Your task to perform on an android device: Go to CNN.com Image 0: 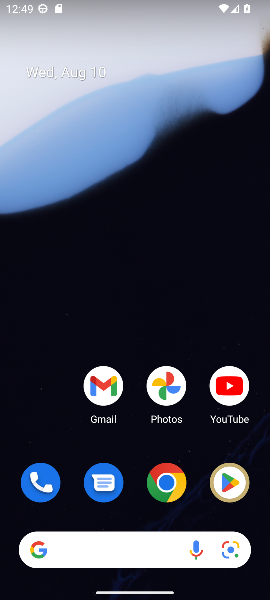
Step 0: click (140, 549)
Your task to perform on an android device: Go to CNN.com Image 1: 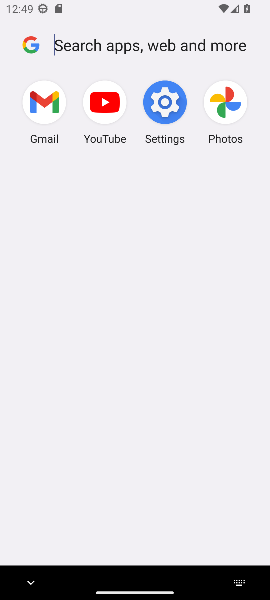
Step 1: type "CNN.com"
Your task to perform on an android device: Go to CNN.com Image 2: 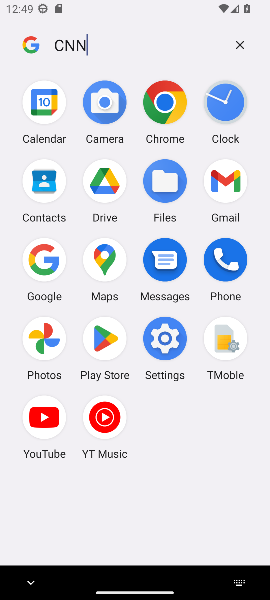
Step 2: type ""
Your task to perform on an android device: Go to CNN.com Image 3: 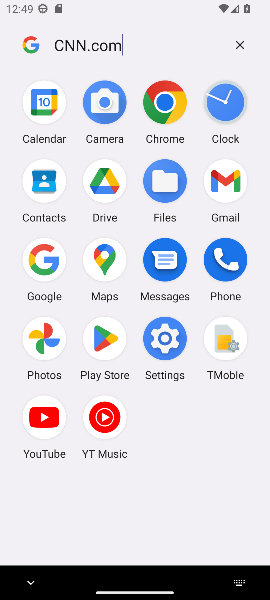
Step 3: press enter
Your task to perform on an android device: Go to CNN.com Image 4: 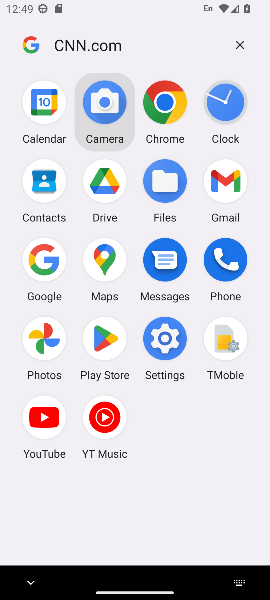
Step 4: click (168, 38)
Your task to perform on an android device: Go to CNN.com Image 5: 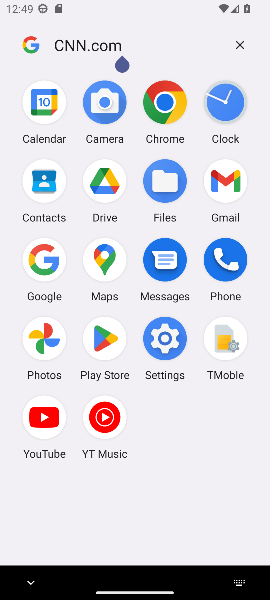
Step 5: press enter
Your task to perform on an android device: Go to CNN.com Image 6: 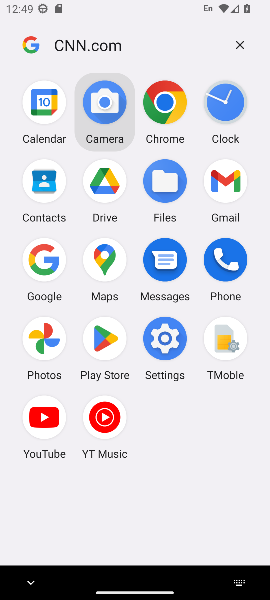
Step 6: click (184, 98)
Your task to perform on an android device: Go to CNN.com Image 7: 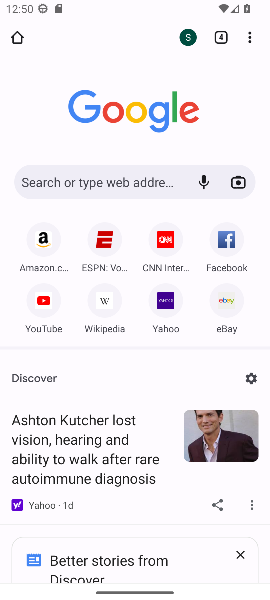
Step 7: click (34, 175)
Your task to perform on an android device: Go to CNN.com Image 8: 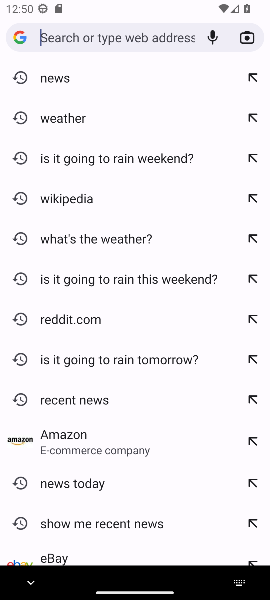
Step 8: type " CNN.com"
Your task to perform on an android device: Go to CNN.com Image 9: 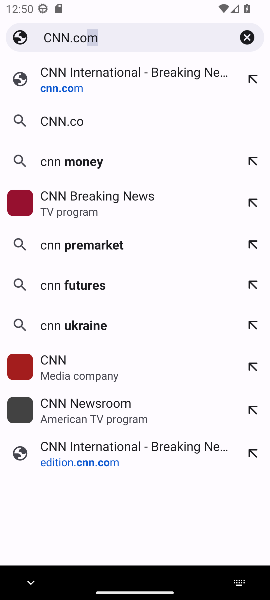
Step 9: type ""
Your task to perform on an android device: Go to CNN.com Image 10: 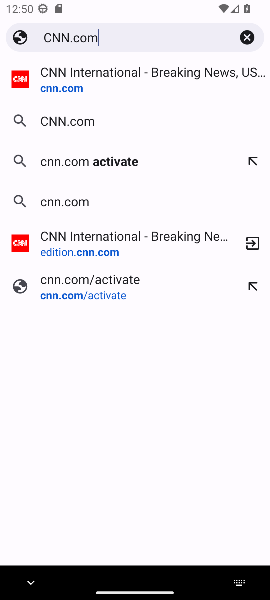
Step 10: press enter
Your task to perform on an android device: Go to CNN.com Image 11: 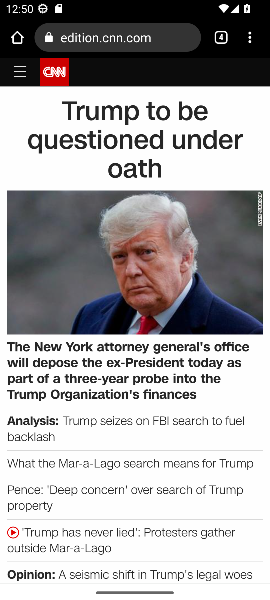
Step 11: task complete